Your task to perform on an android device: change the clock style Image 0: 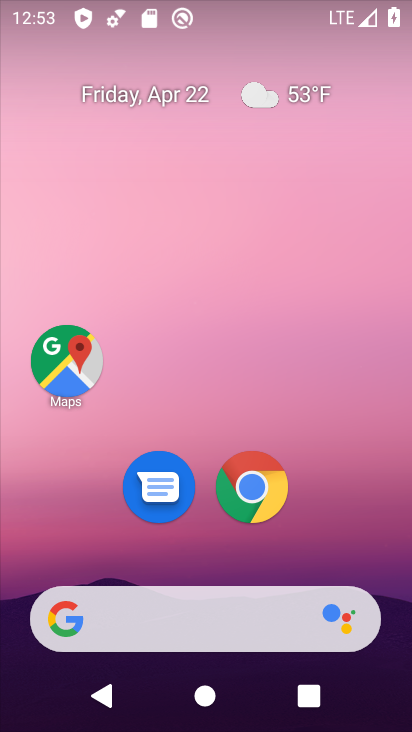
Step 0: drag from (194, 560) to (183, 3)
Your task to perform on an android device: change the clock style Image 1: 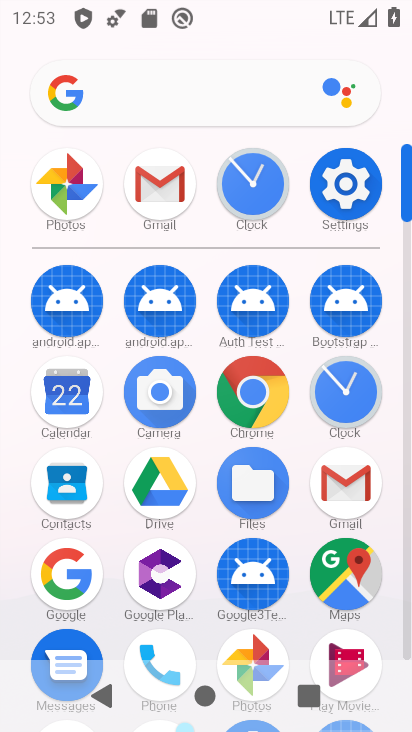
Step 1: click (236, 207)
Your task to perform on an android device: change the clock style Image 2: 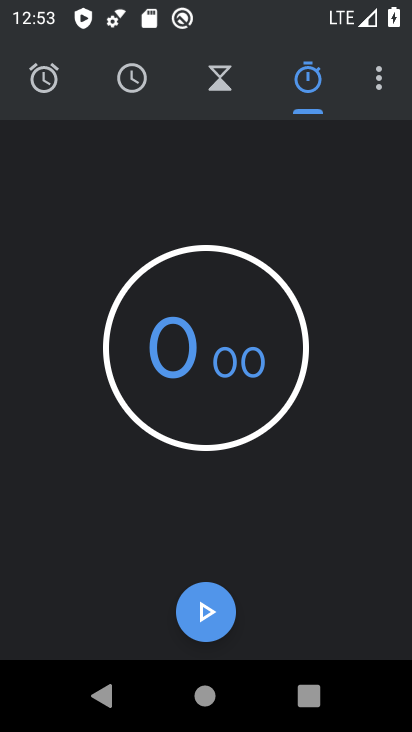
Step 2: click (382, 81)
Your task to perform on an android device: change the clock style Image 3: 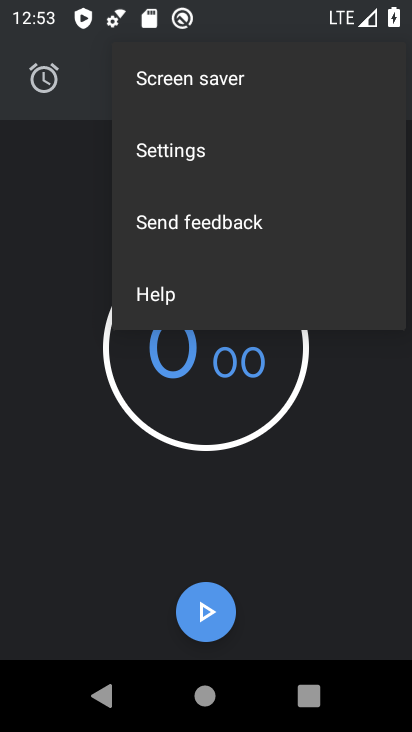
Step 3: click (167, 149)
Your task to perform on an android device: change the clock style Image 4: 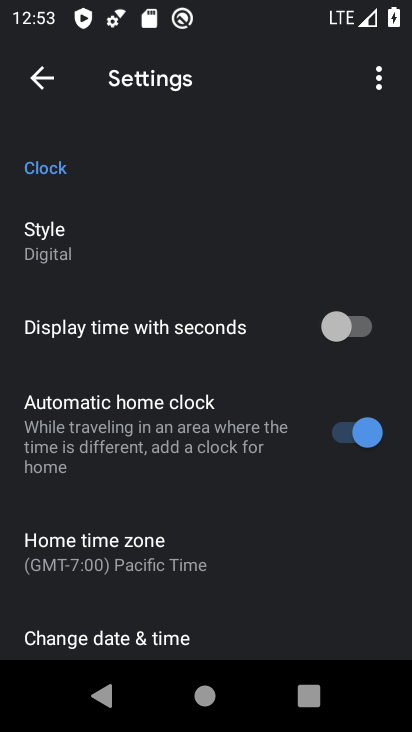
Step 4: click (81, 263)
Your task to perform on an android device: change the clock style Image 5: 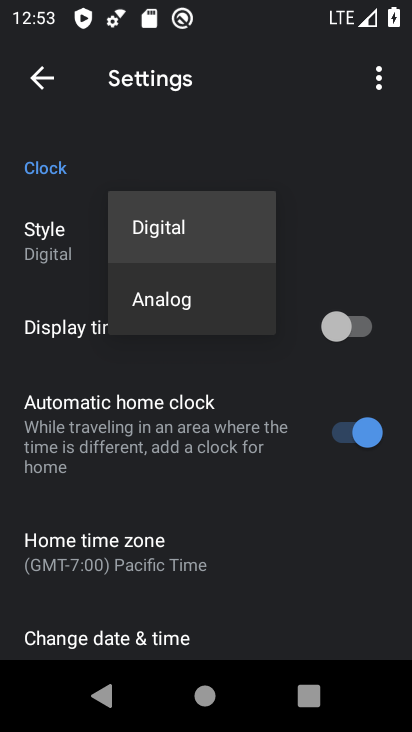
Step 5: click (153, 290)
Your task to perform on an android device: change the clock style Image 6: 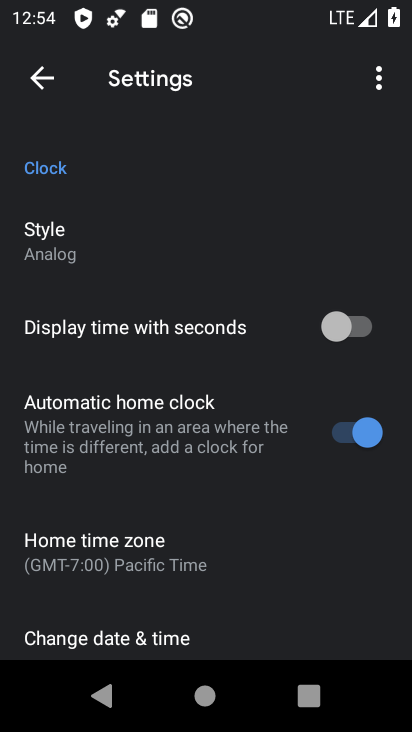
Step 6: task complete